Your task to perform on an android device: What's the weather going to be tomorrow? Image 0: 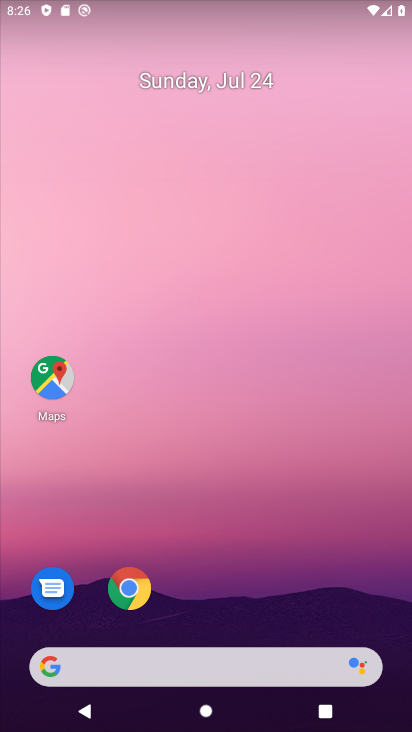
Step 0: click (175, 659)
Your task to perform on an android device: What's the weather going to be tomorrow? Image 1: 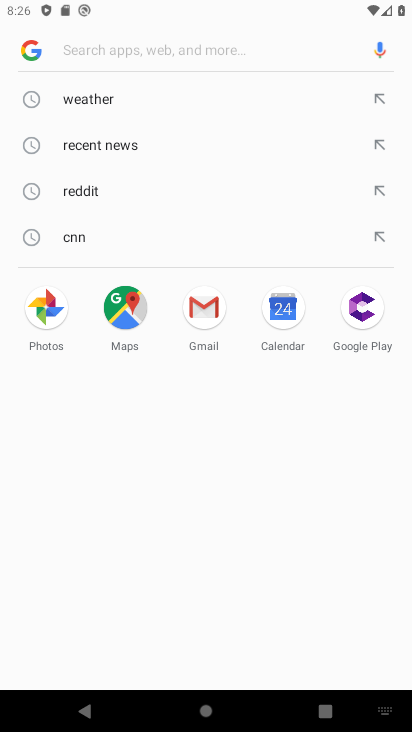
Step 1: type "what's the weather going to be tomorrow?"
Your task to perform on an android device: What's the weather going to be tomorrow? Image 2: 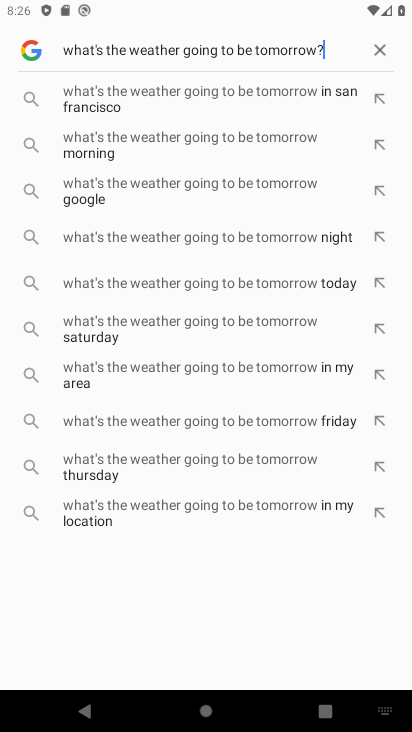
Step 2: click (253, 189)
Your task to perform on an android device: What's the weather going to be tomorrow? Image 3: 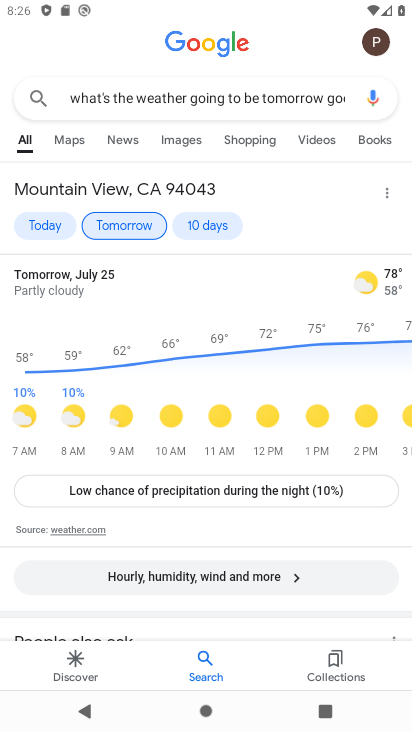
Step 3: task complete